Your task to perform on an android device: Clear the cart on costco.com. Add razer naga to the cart on costco.com, then select checkout. Image 0: 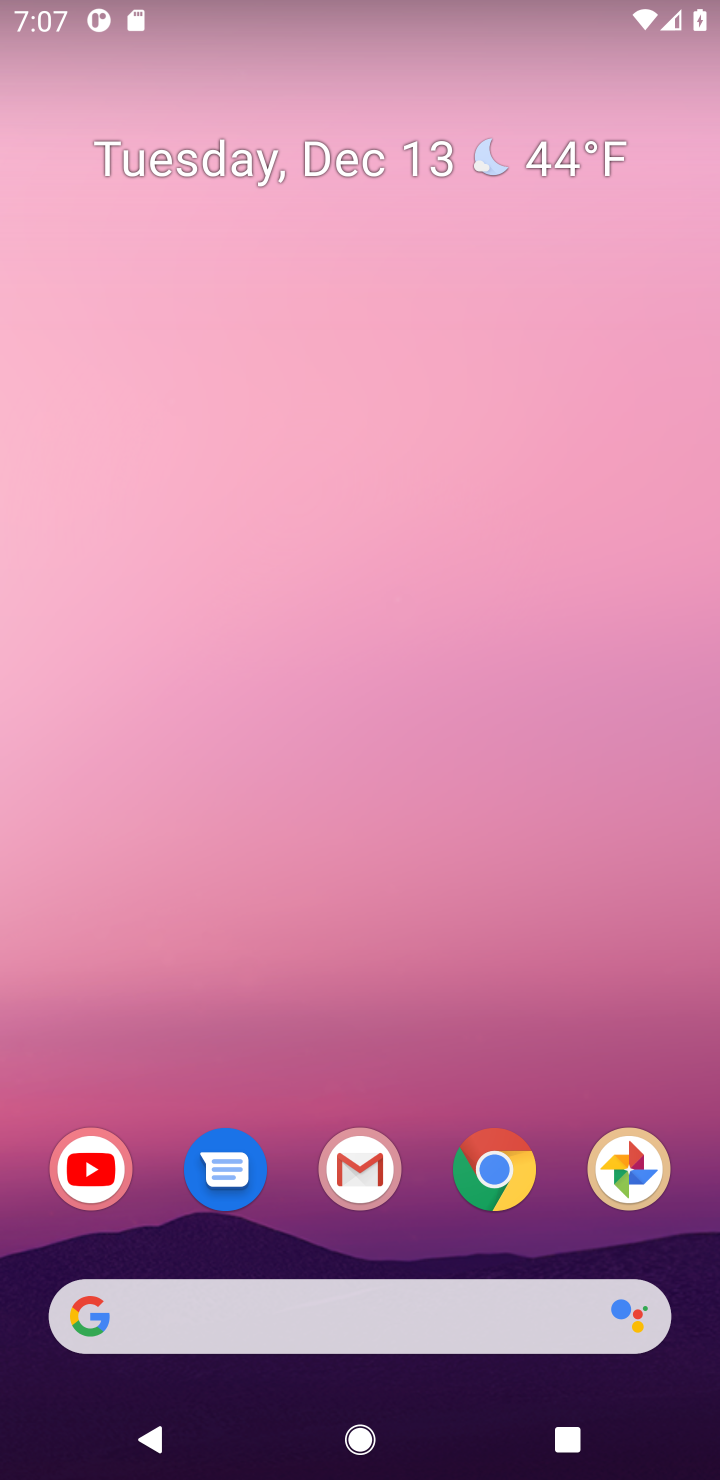
Step 0: click (465, 1190)
Your task to perform on an android device: Clear the cart on costco.com. Add razer naga to the cart on costco.com, then select checkout. Image 1: 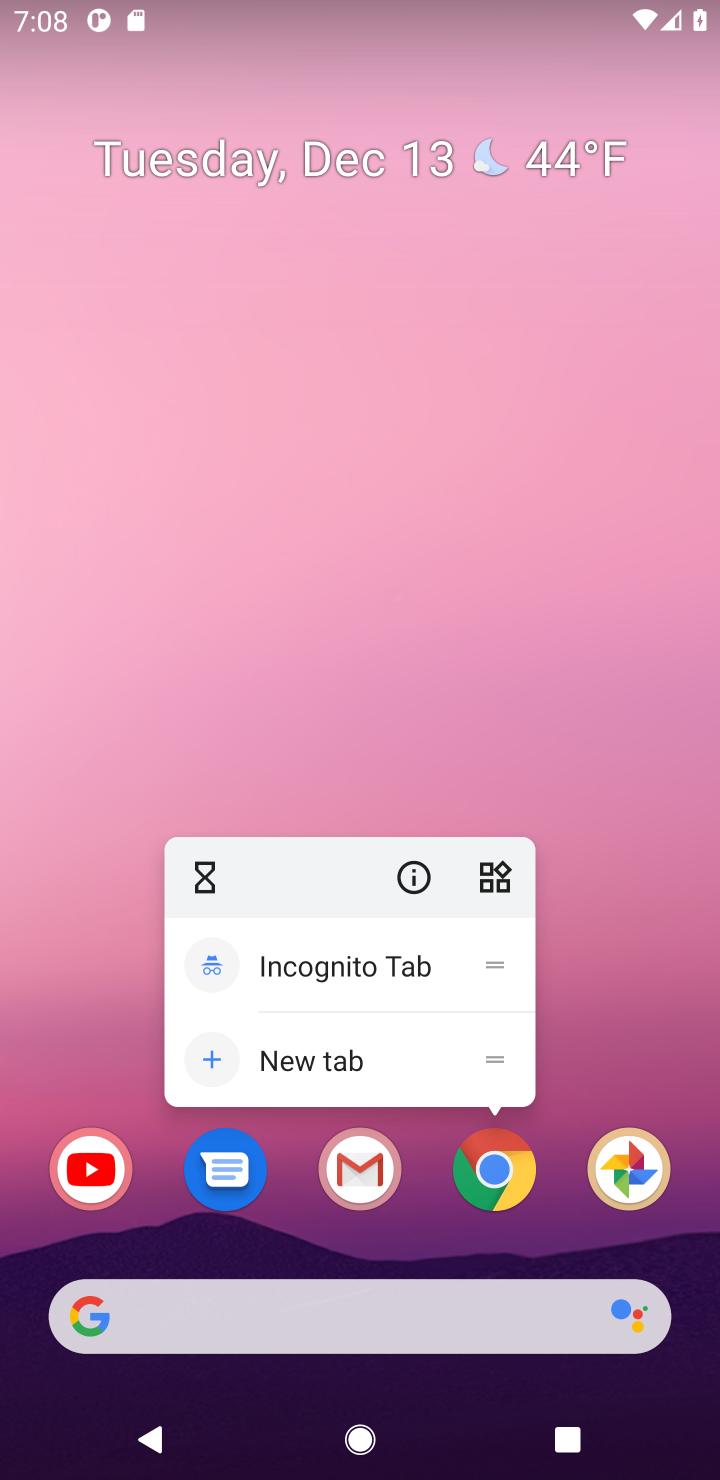
Step 1: click (519, 1158)
Your task to perform on an android device: Clear the cart on costco.com. Add razer naga to the cart on costco.com, then select checkout. Image 2: 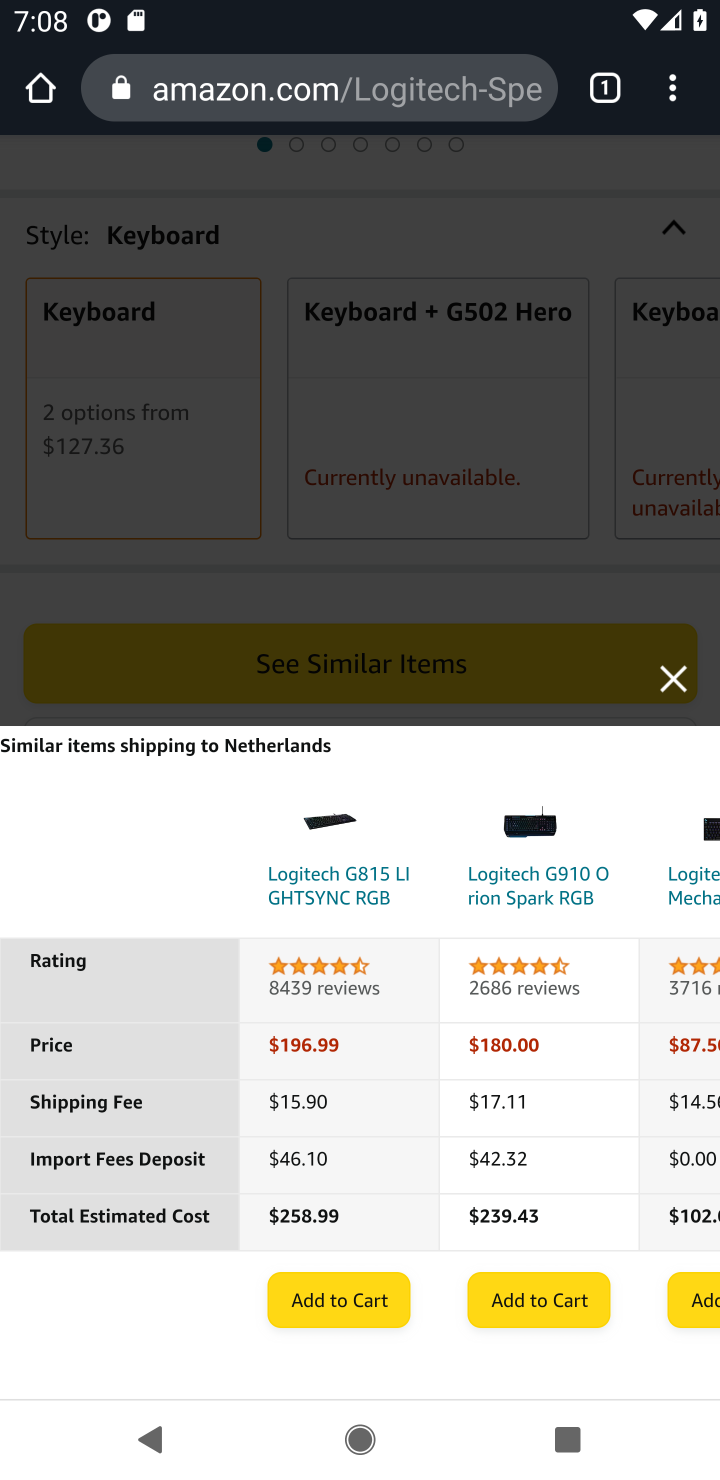
Step 2: click (322, 1309)
Your task to perform on an android device: Clear the cart on costco.com. Add razer naga to the cart on costco.com, then select checkout. Image 3: 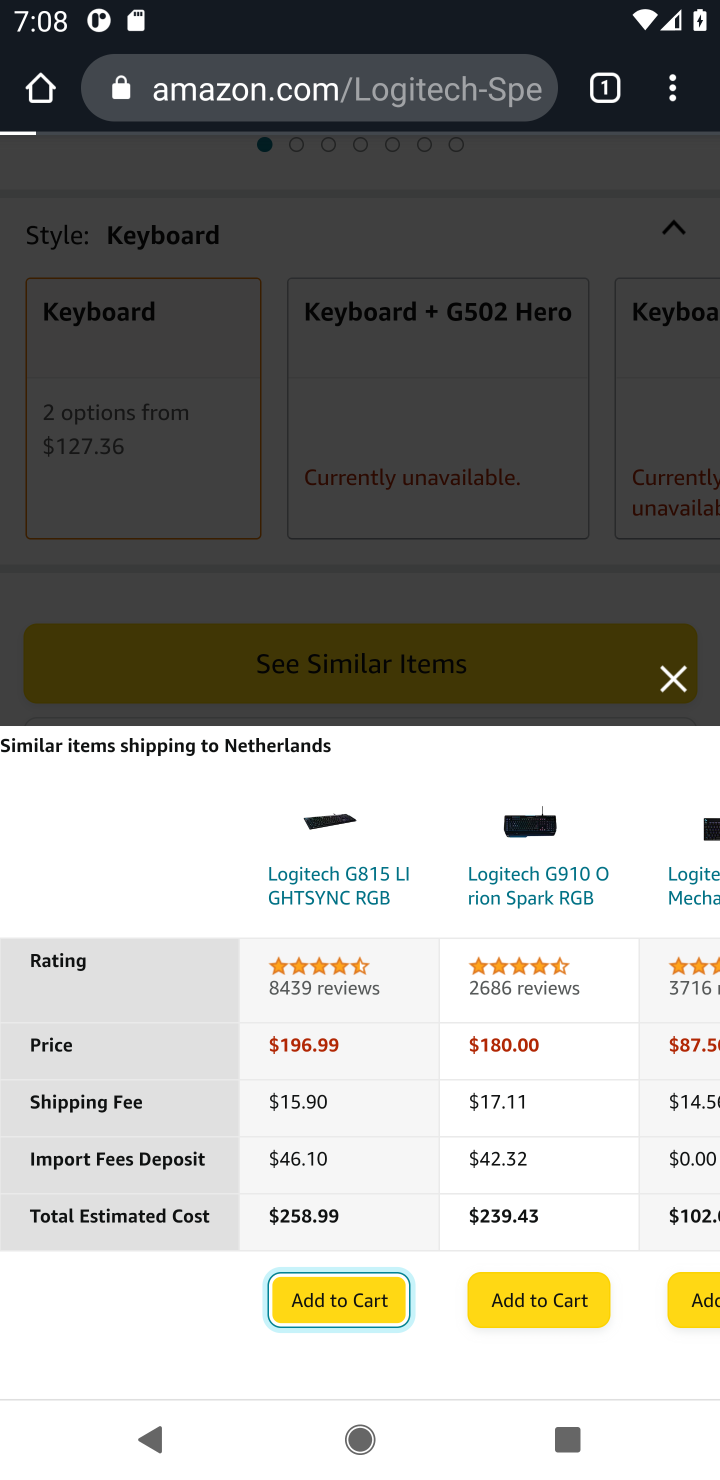
Step 3: click (368, 118)
Your task to perform on an android device: Clear the cart on costco.com. Add razer naga to the cart on costco.com, then select checkout. Image 4: 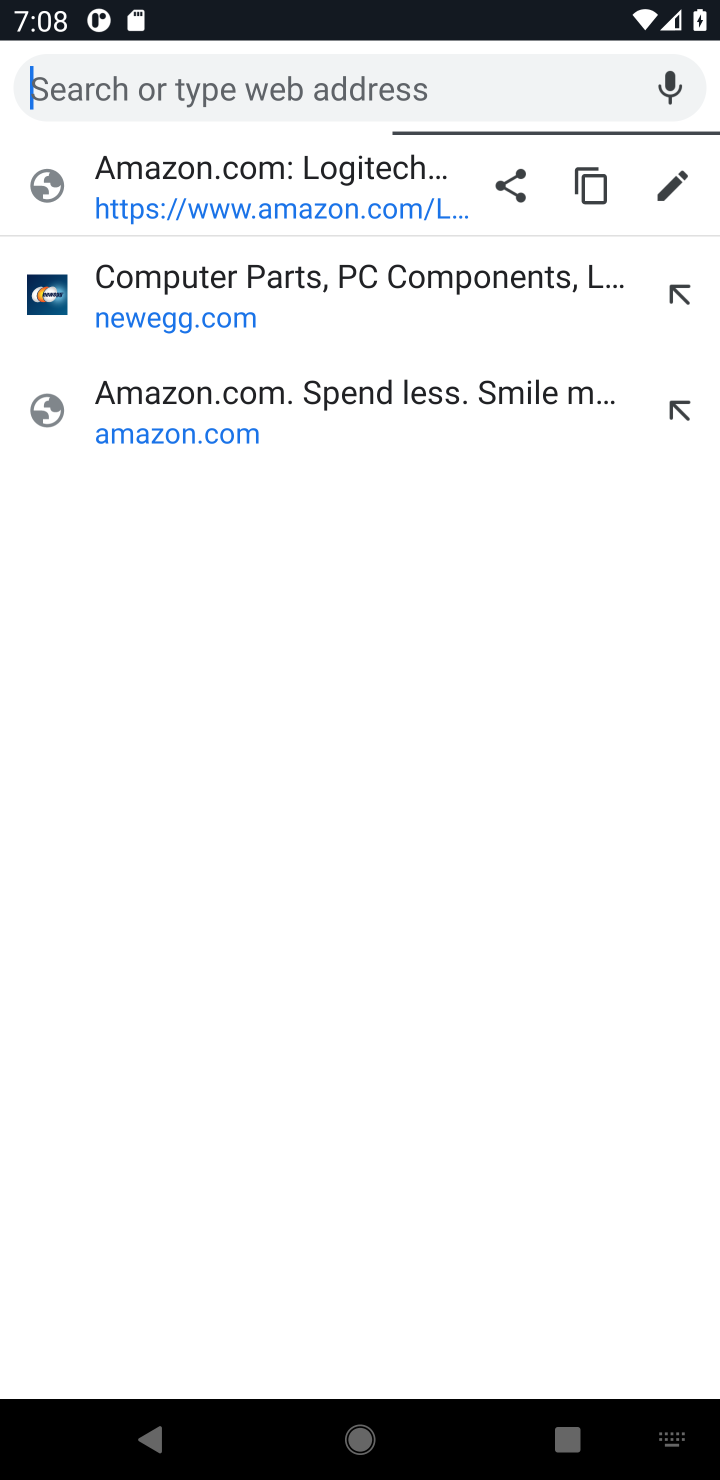
Step 4: type "costco"
Your task to perform on an android device: Clear the cart on costco.com. Add razer naga to the cart on costco.com, then select checkout. Image 5: 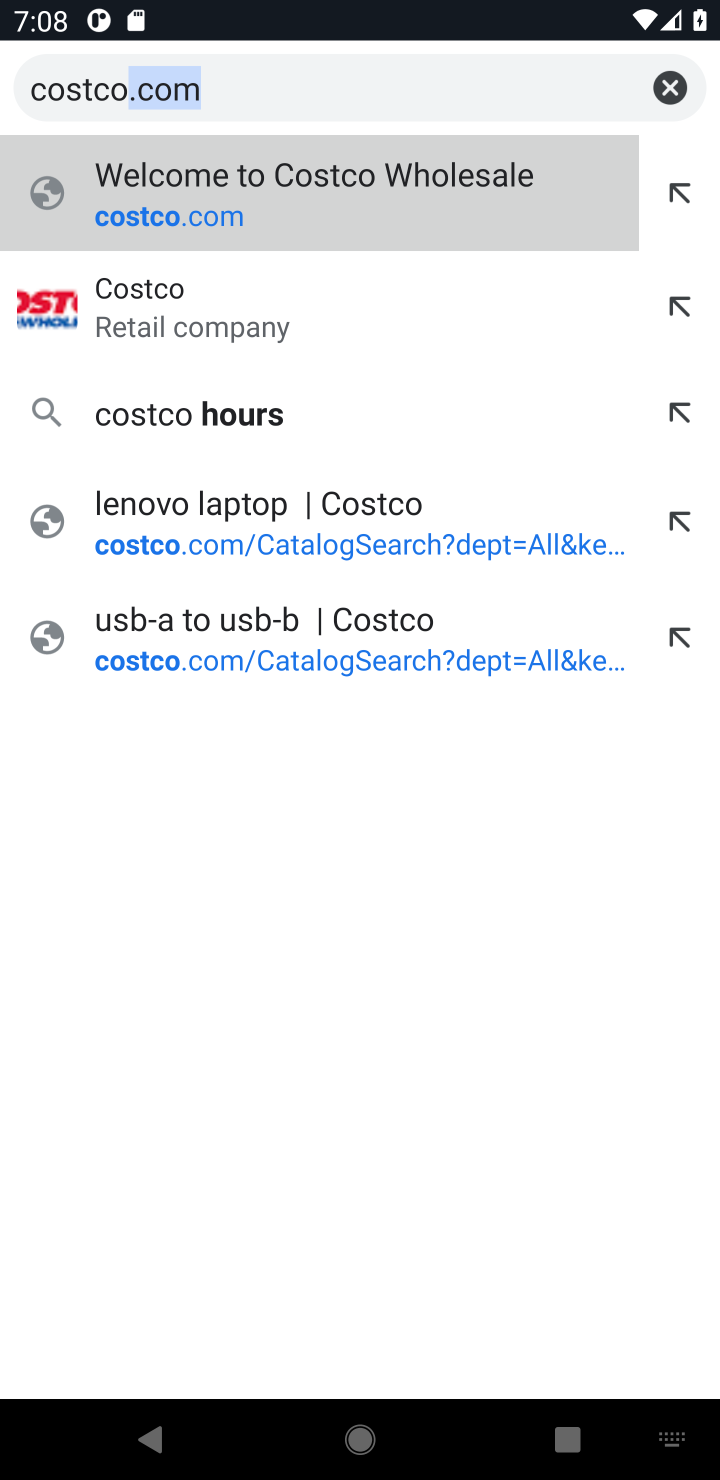
Step 5: click (104, 323)
Your task to perform on an android device: Clear the cart on costco.com. Add razer naga to the cart on costco.com, then select checkout. Image 6: 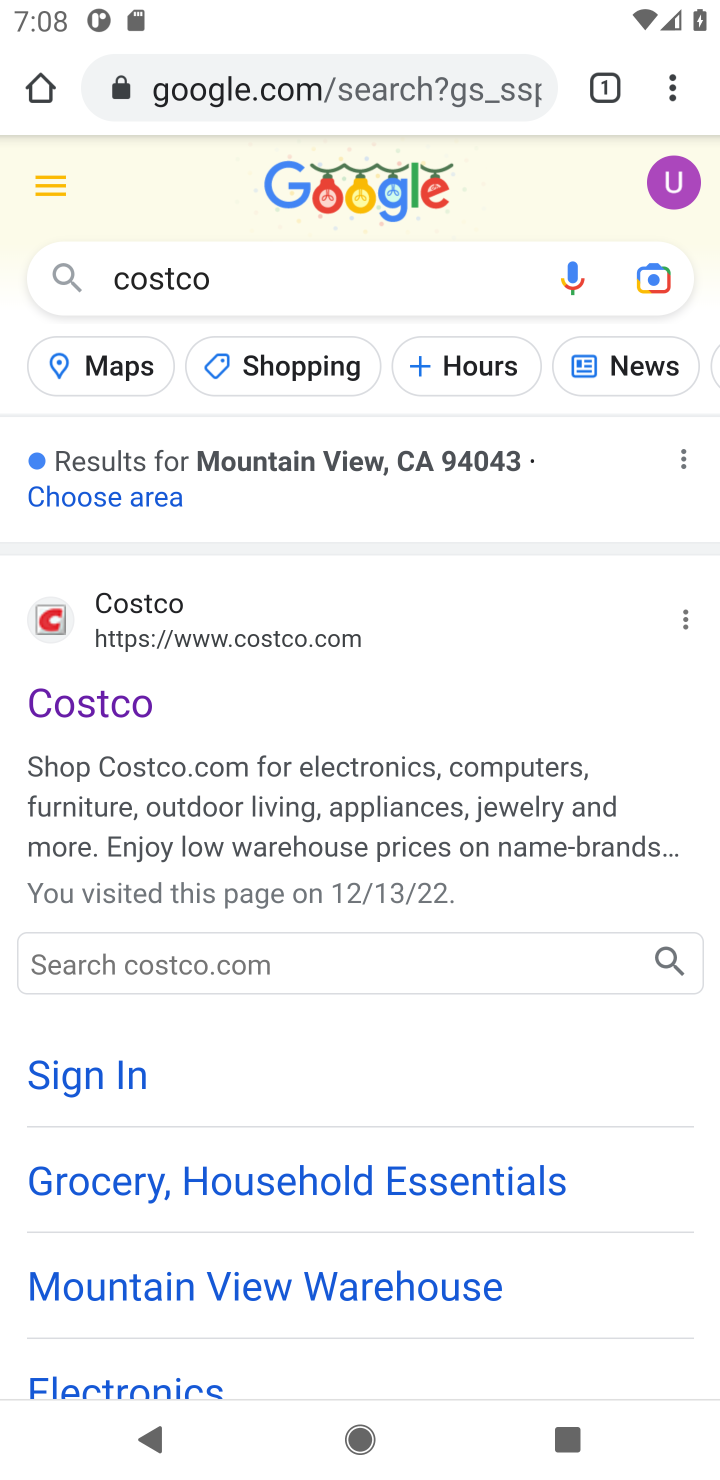
Step 6: click (60, 661)
Your task to perform on an android device: Clear the cart on costco.com. Add razer naga to the cart on costco.com, then select checkout. Image 7: 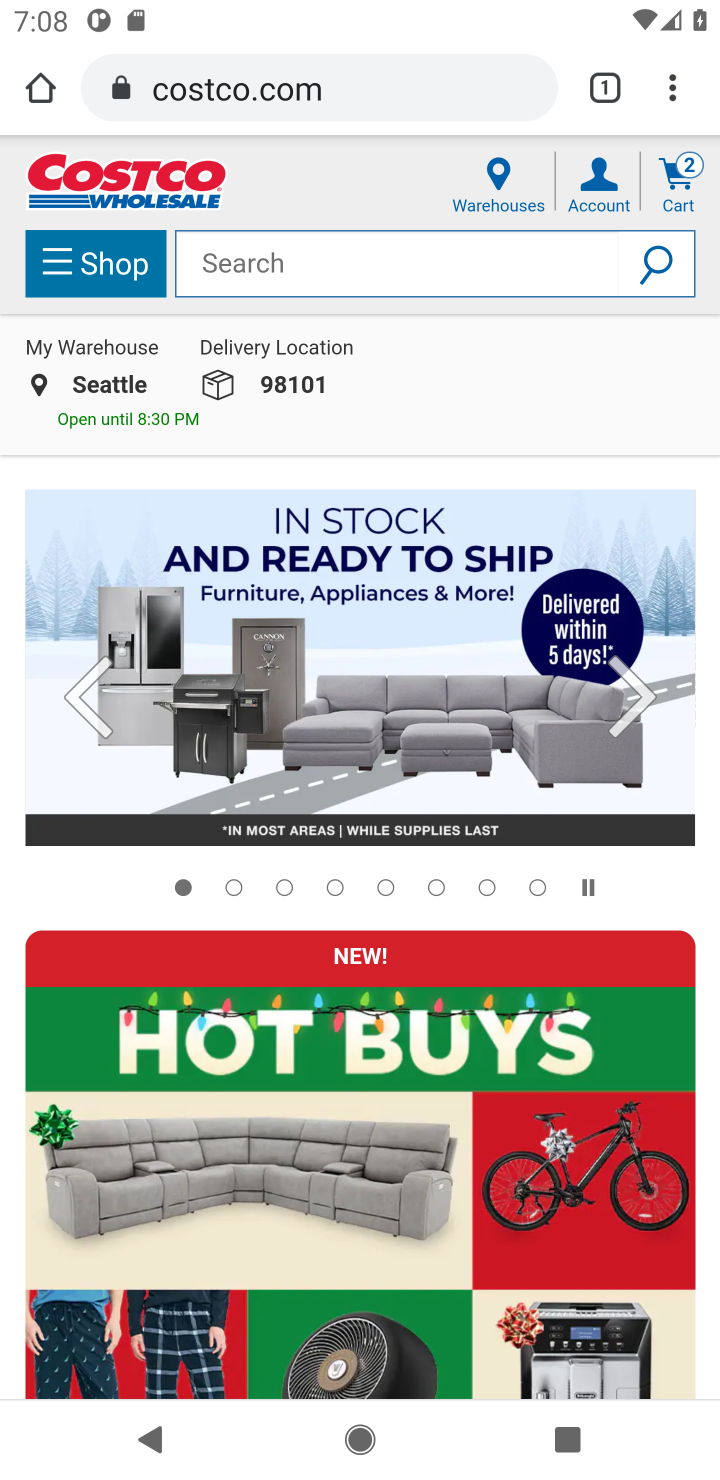
Step 7: click (451, 272)
Your task to perform on an android device: Clear the cart on costco.com. Add razer naga to the cart on costco.com, then select checkout. Image 8: 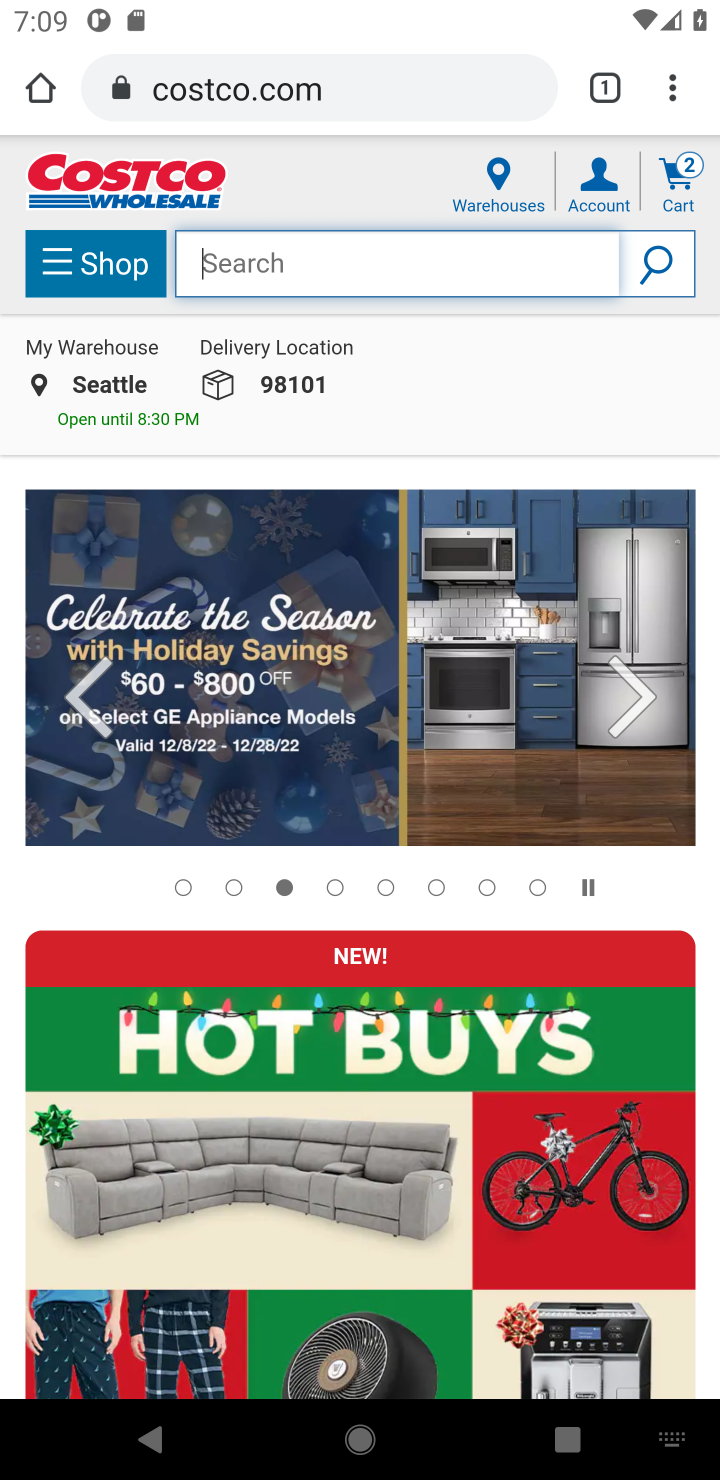
Step 8: type "razer naga"
Your task to perform on an android device: Clear the cart on costco.com. Add razer naga to the cart on costco.com, then select checkout. Image 9: 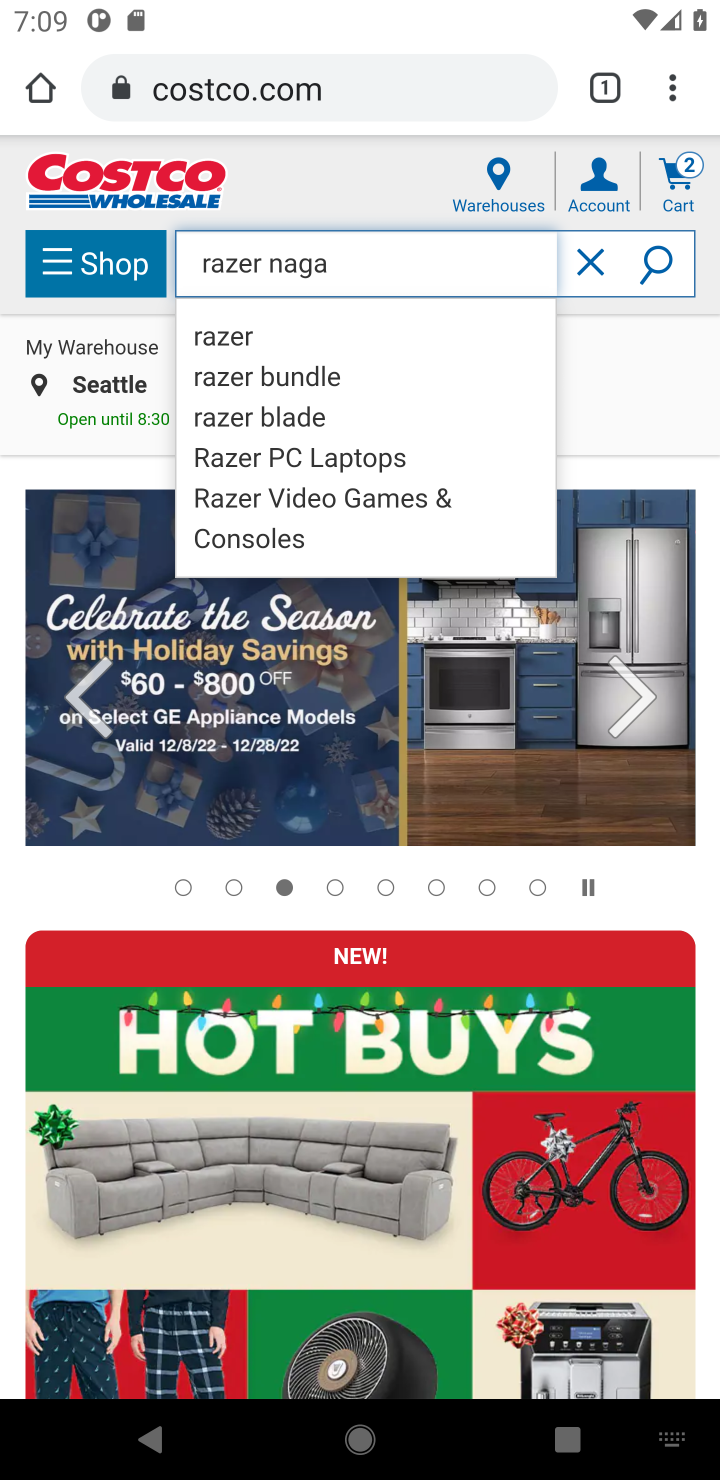
Step 9: click (654, 272)
Your task to perform on an android device: Clear the cart on costco.com. Add razer naga to the cart on costco.com, then select checkout. Image 10: 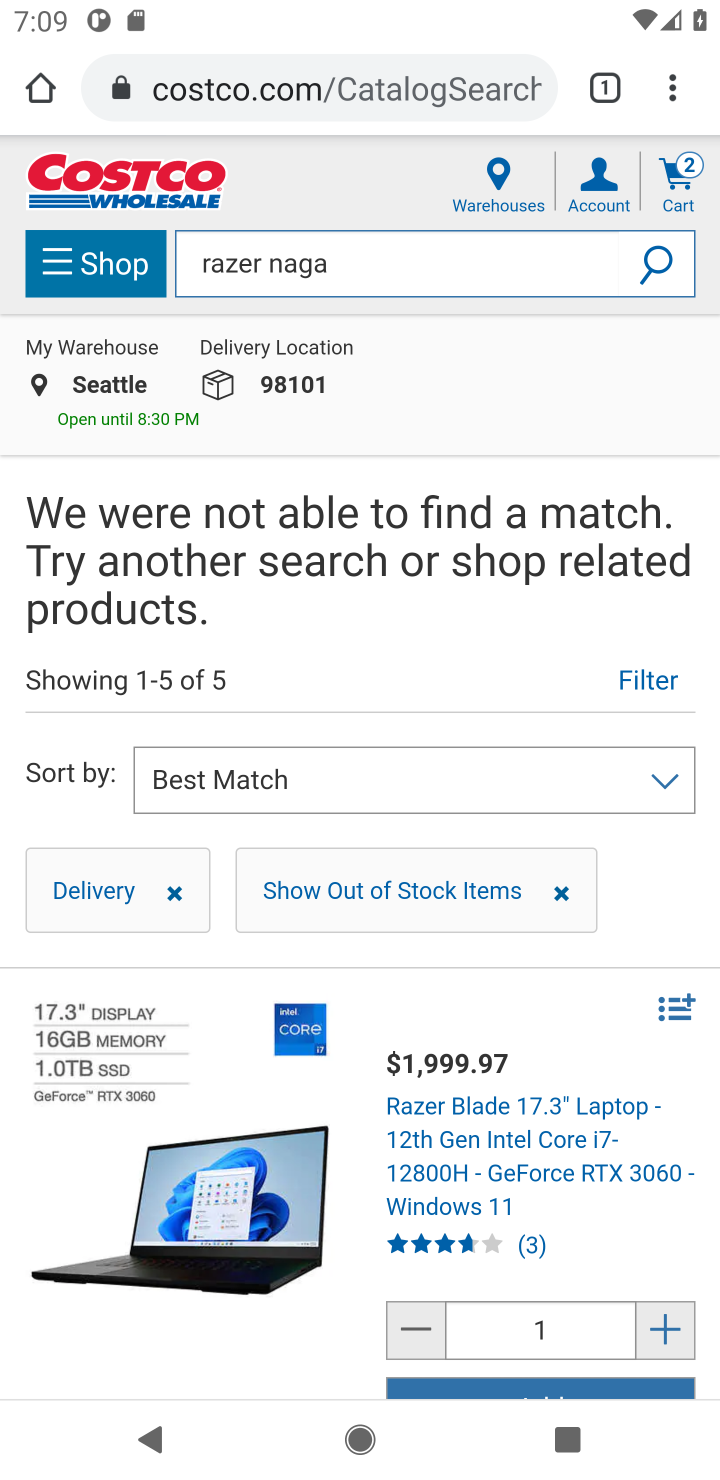
Step 10: click (547, 1376)
Your task to perform on an android device: Clear the cart on costco.com. Add razer naga to the cart on costco.com, then select checkout. Image 11: 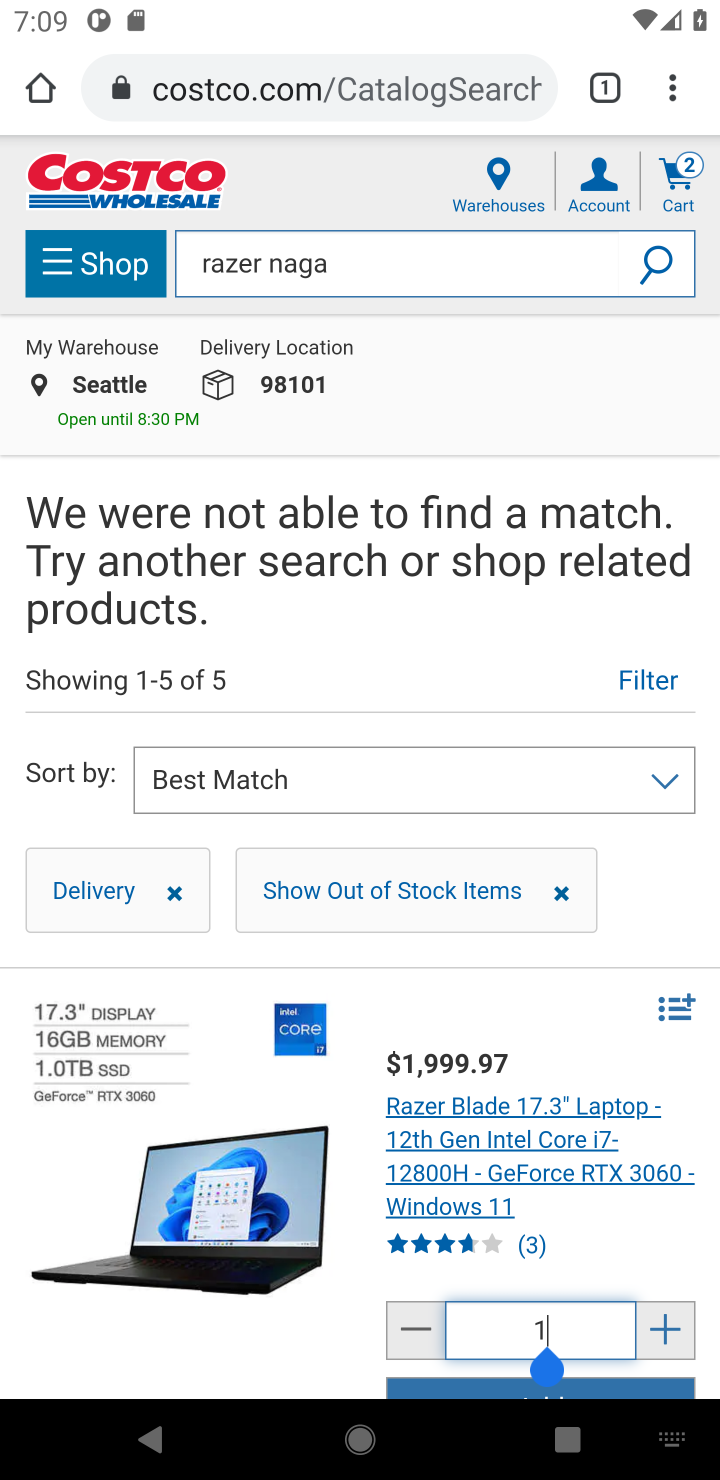
Step 11: click (521, 1393)
Your task to perform on an android device: Clear the cart on costco.com. Add razer naga to the cart on costco.com, then select checkout. Image 12: 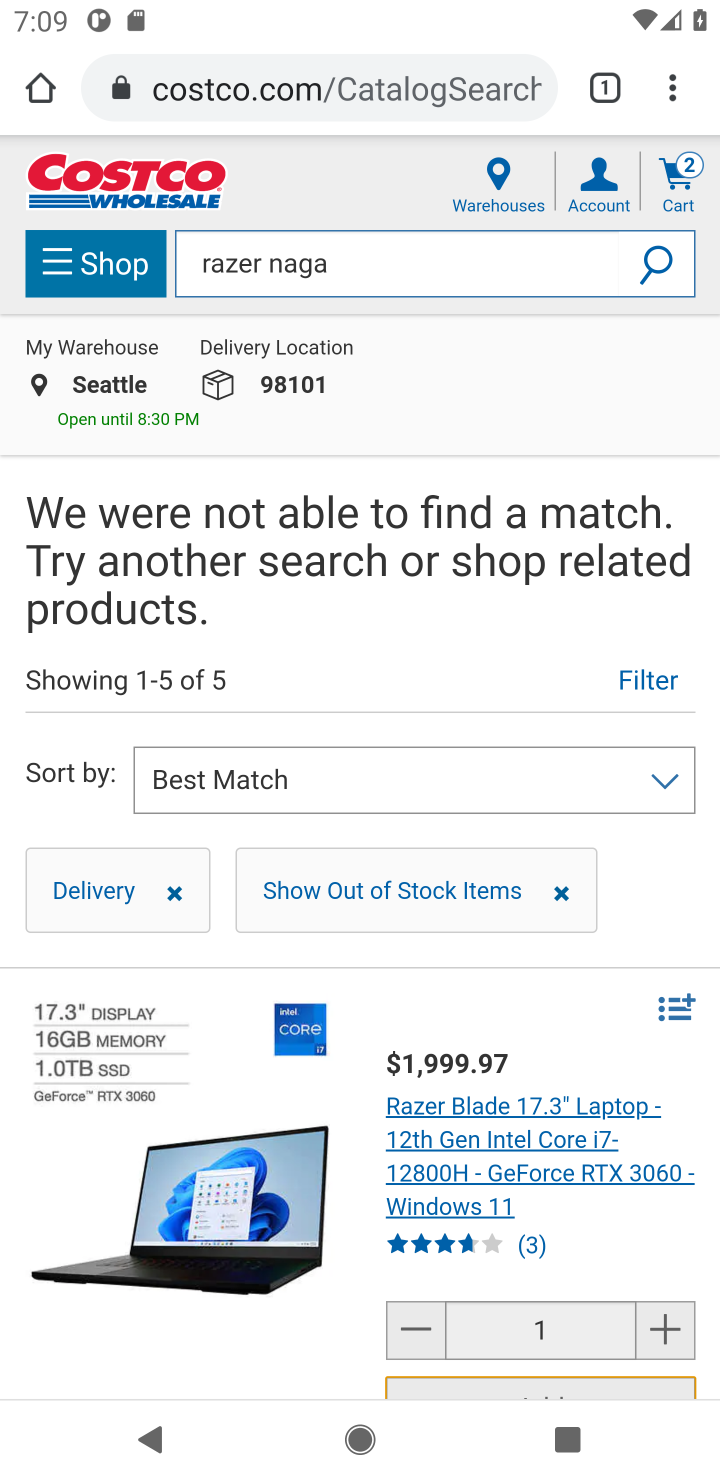
Step 12: task complete